Your task to perform on an android device: open app "WhatsApp Messenger" (install if not already installed) Image 0: 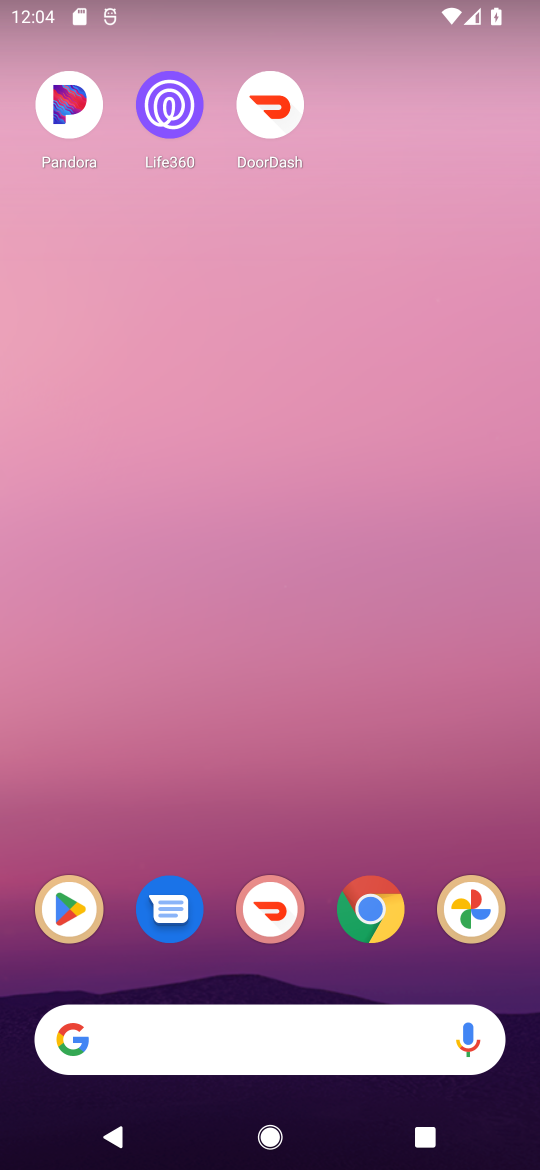
Step 0: click (82, 899)
Your task to perform on an android device: open app "WhatsApp Messenger" (install if not already installed) Image 1: 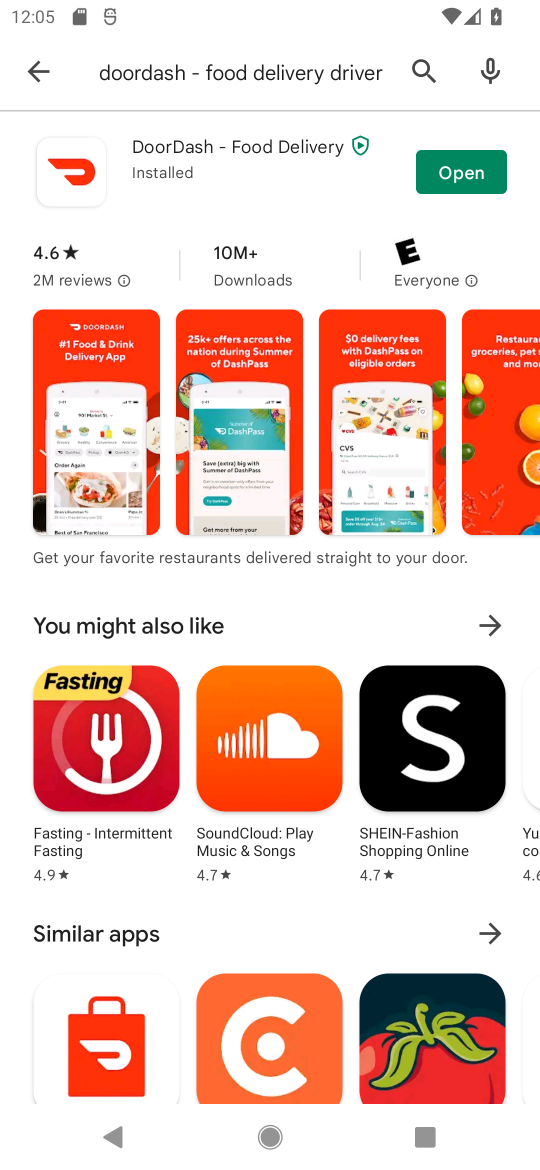
Step 1: click (416, 71)
Your task to perform on an android device: open app "WhatsApp Messenger" (install if not already installed) Image 2: 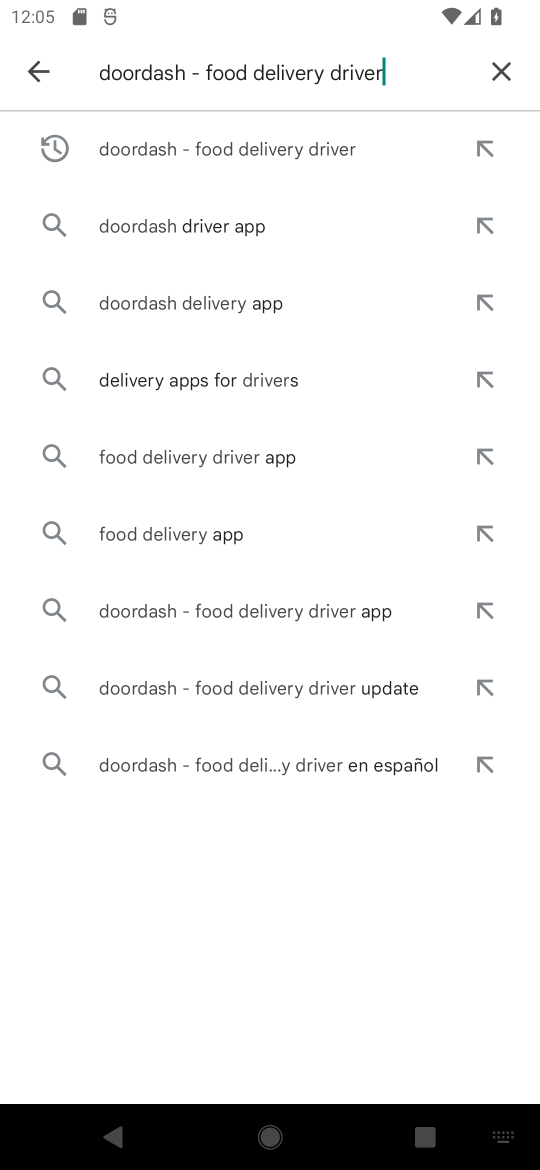
Step 2: click (494, 72)
Your task to perform on an android device: open app "WhatsApp Messenger" (install if not already installed) Image 3: 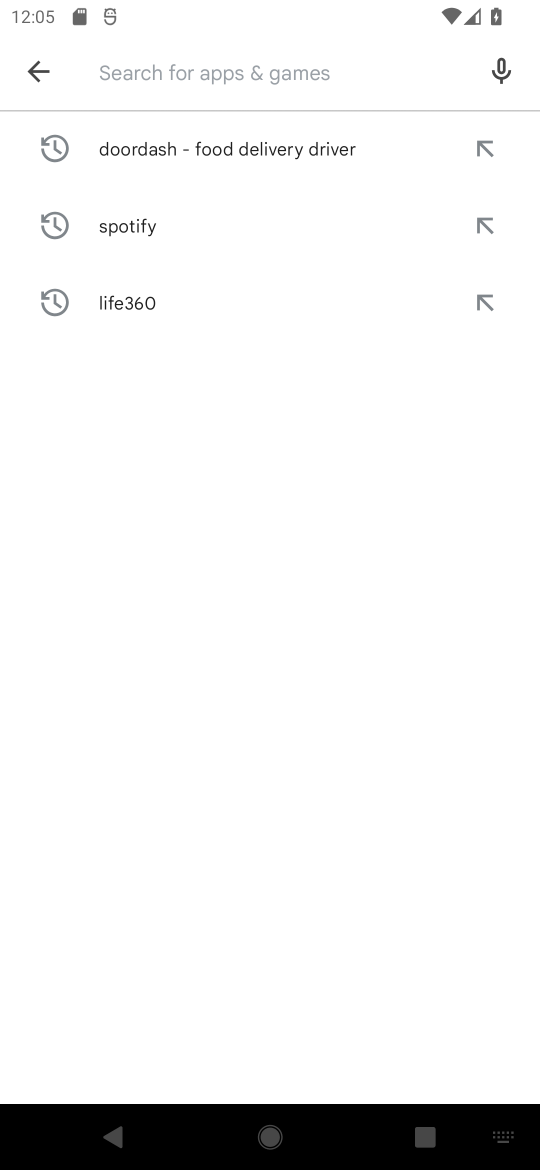
Step 3: type "WhatsApp Messenger"
Your task to perform on an android device: open app "WhatsApp Messenger" (install if not already installed) Image 4: 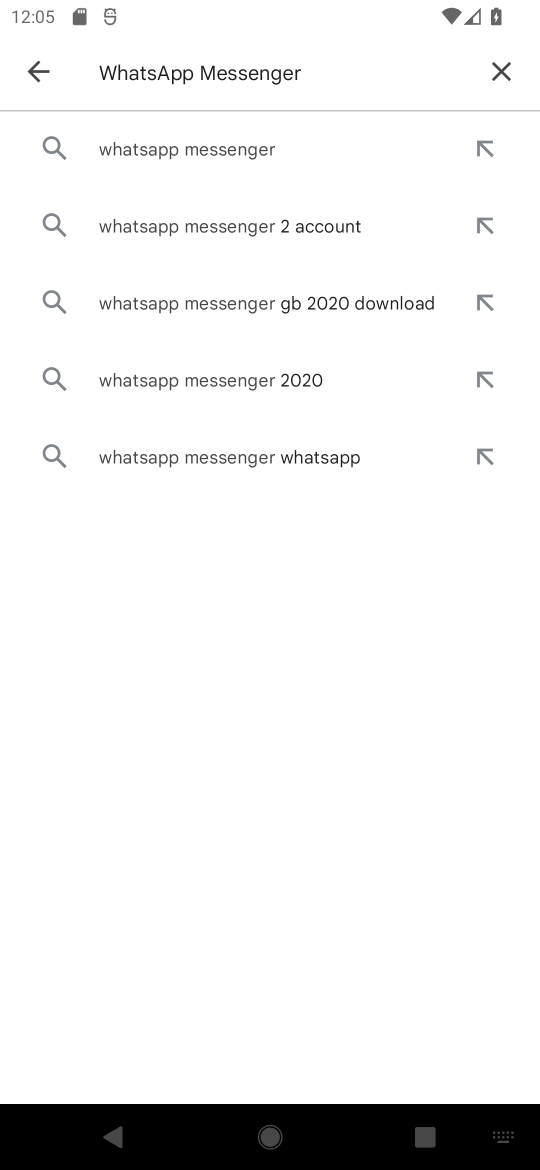
Step 4: click (109, 141)
Your task to perform on an android device: open app "WhatsApp Messenger" (install if not already installed) Image 5: 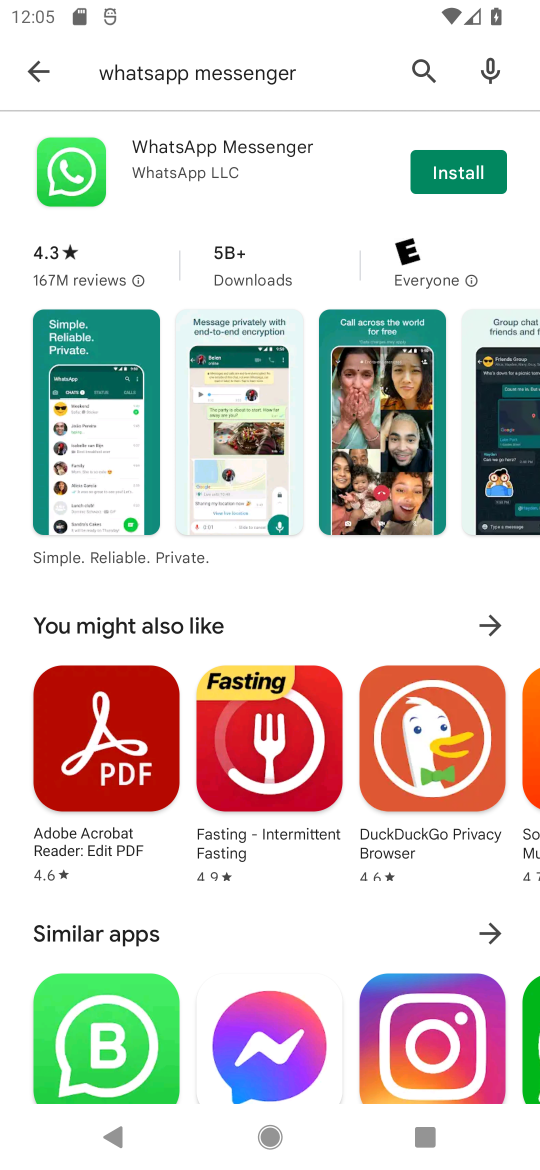
Step 5: click (465, 171)
Your task to perform on an android device: open app "WhatsApp Messenger" (install if not already installed) Image 6: 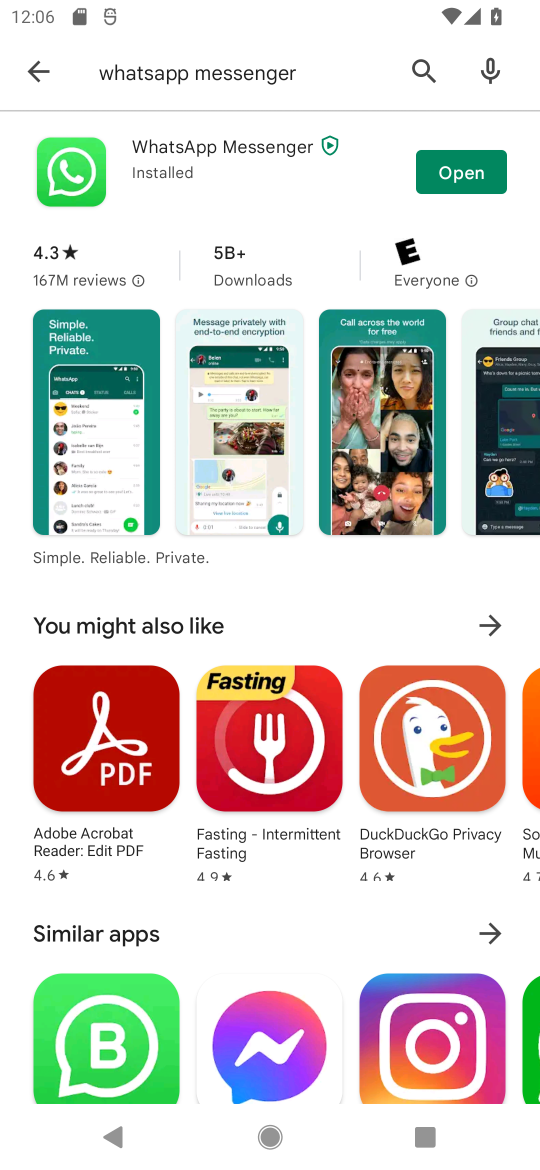
Step 6: click (465, 176)
Your task to perform on an android device: open app "WhatsApp Messenger" (install if not already installed) Image 7: 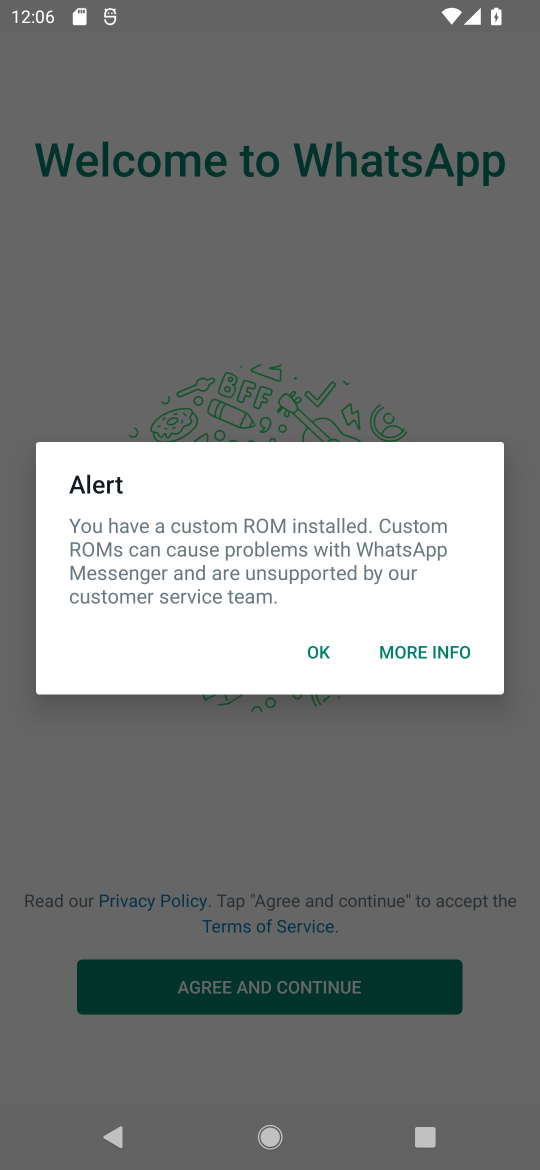
Step 7: task complete